Your task to perform on an android device: Do I have any events today? Image 0: 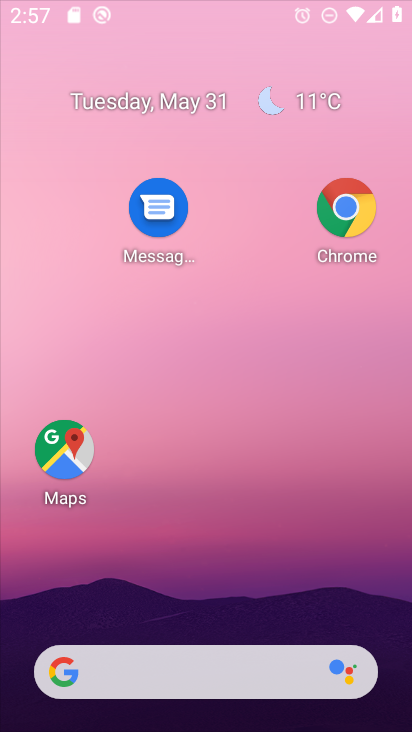
Step 0: drag from (408, 121) to (90, 23)
Your task to perform on an android device: Do I have any events today? Image 1: 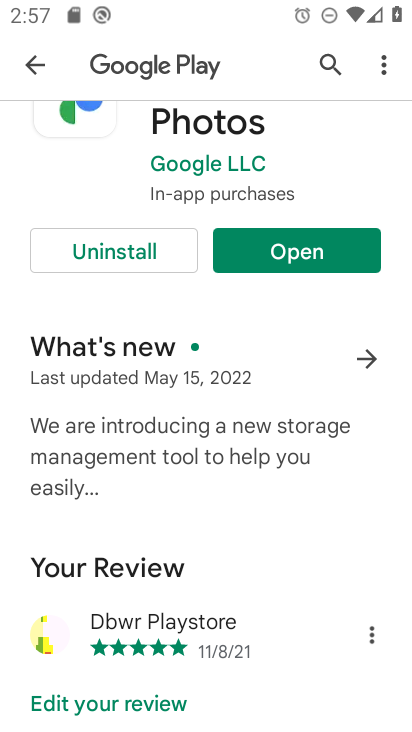
Step 1: press home button
Your task to perform on an android device: Do I have any events today? Image 2: 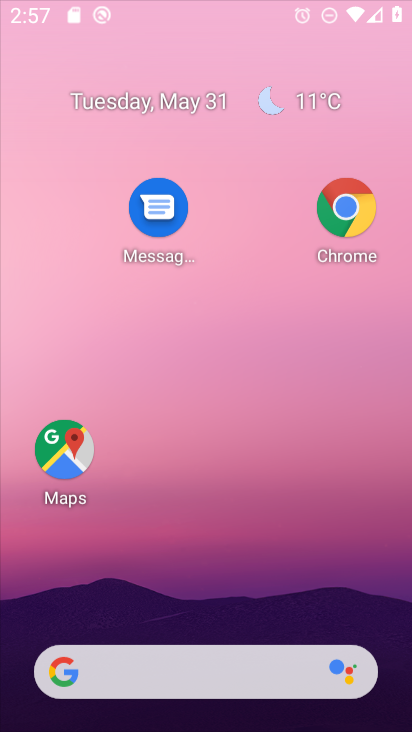
Step 2: drag from (148, 615) to (172, 0)
Your task to perform on an android device: Do I have any events today? Image 3: 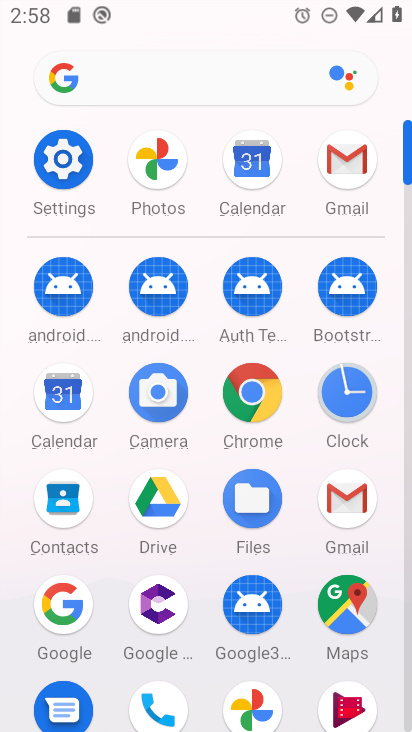
Step 3: click (62, 404)
Your task to perform on an android device: Do I have any events today? Image 4: 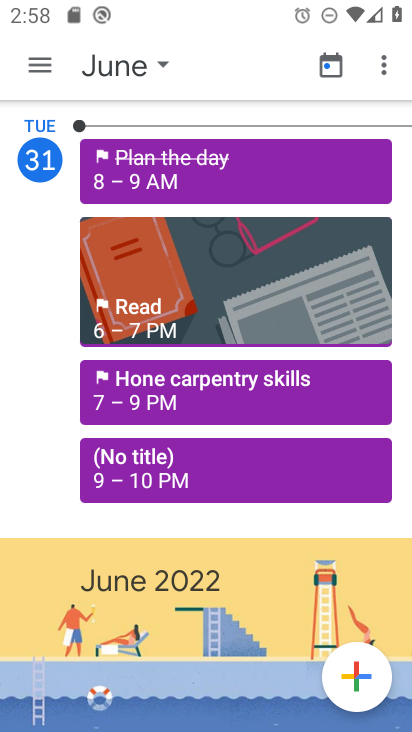
Step 4: click (137, 67)
Your task to perform on an android device: Do I have any events today? Image 5: 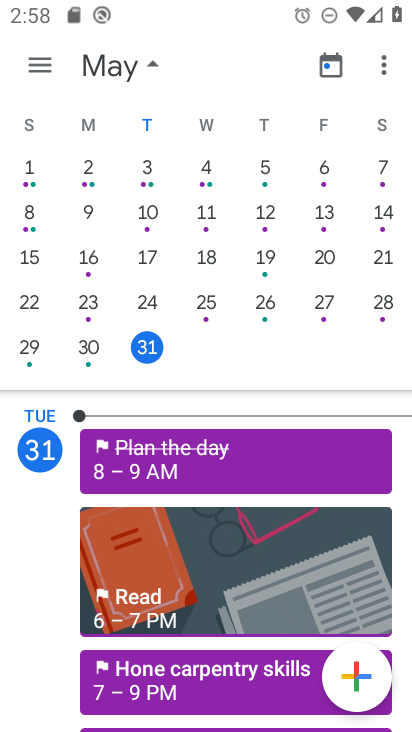
Step 5: click (134, 346)
Your task to perform on an android device: Do I have any events today? Image 6: 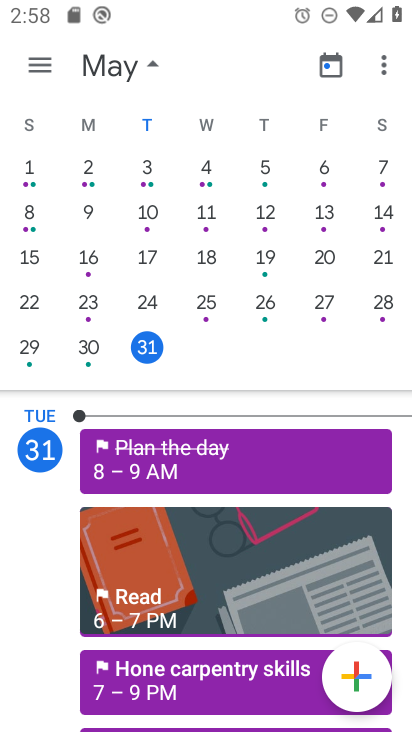
Step 6: task complete